Your task to perform on an android device: Open Google Chrome and open the bookmarks view Image 0: 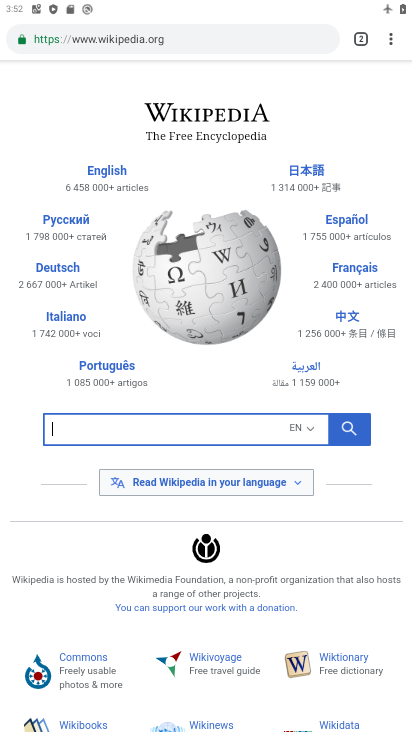
Step 0: click (393, 36)
Your task to perform on an android device: Open Google Chrome and open the bookmarks view Image 1: 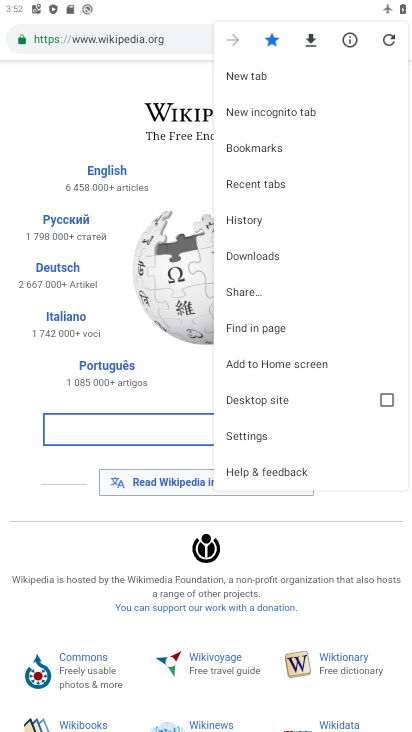
Step 1: click (251, 154)
Your task to perform on an android device: Open Google Chrome and open the bookmarks view Image 2: 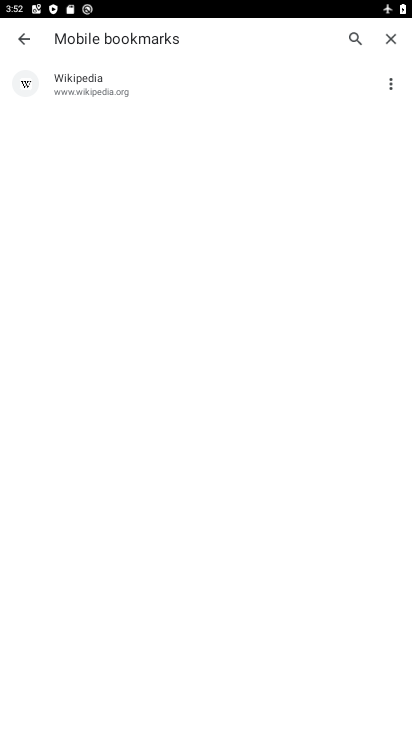
Step 2: task complete